Your task to perform on an android device: check battery use Image 0: 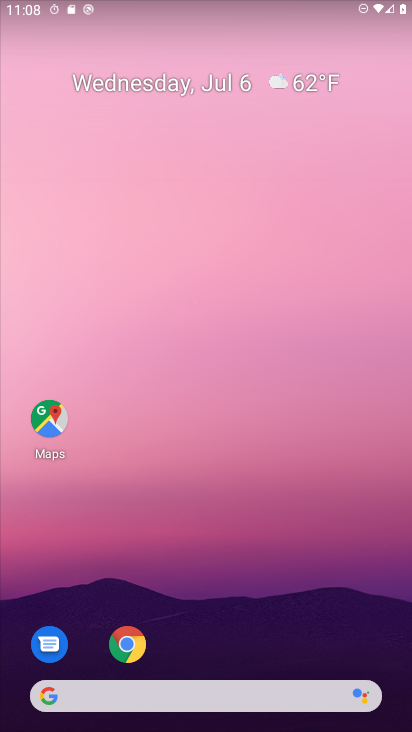
Step 0: drag from (210, 625) to (213, 24)
Your task to perform on an android device: check battery use Image 1: 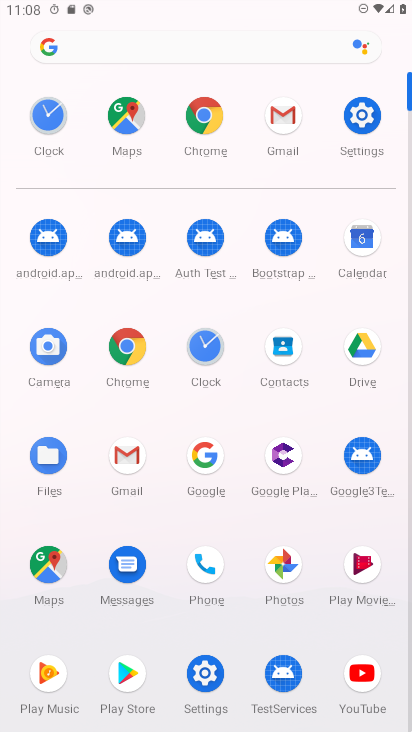
Step 1: click (355, 114)
Your task to perform on an android device: check battery use Image 2: 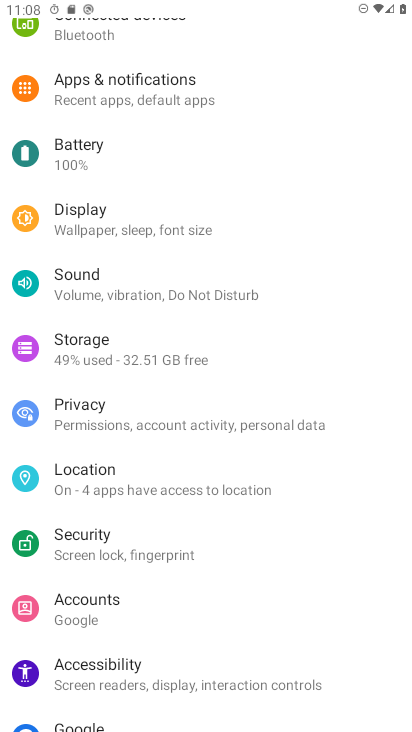
Step 2: click (68, 152)
Your task to perform on an android device: check battery use Image 3: 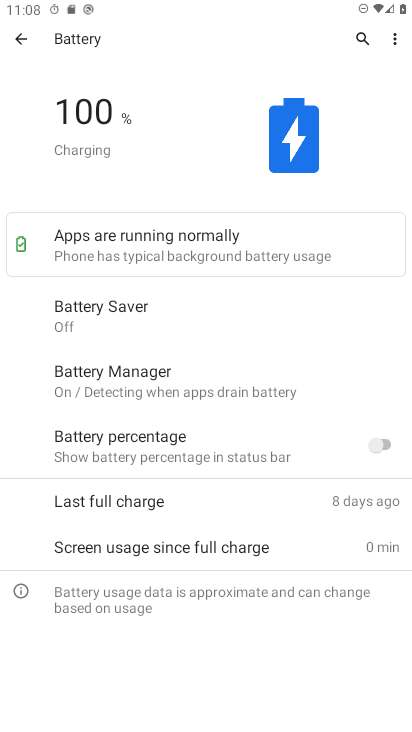
Step 3: click (392, 34)
Your task to perform on an android device: check battery use Image 4: 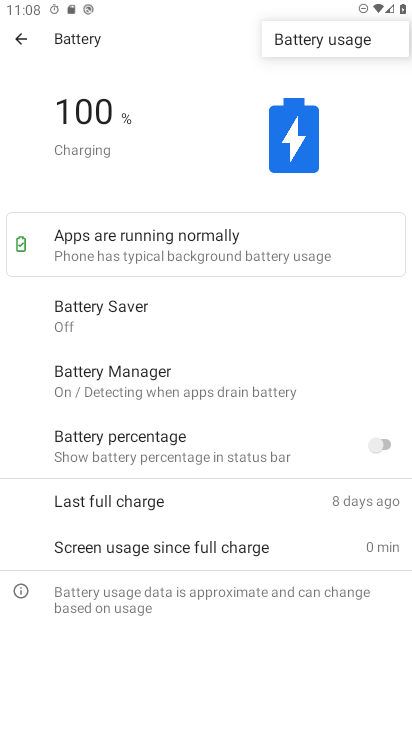
Step 4: click (325, 39)
Your task to perform on an android device: check battery use Image 5: 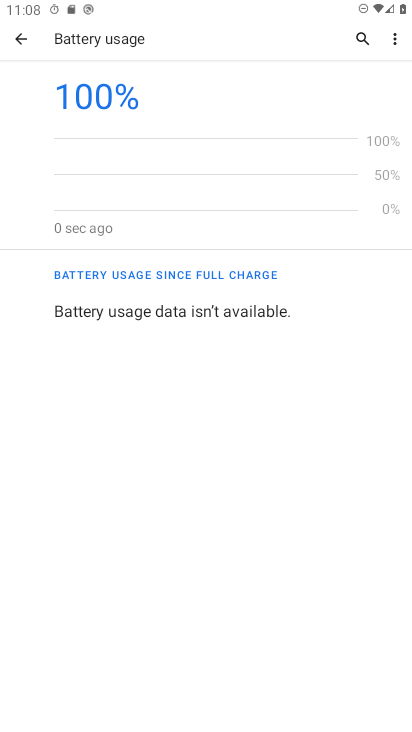
Step 5: task complete